Your task to perform on an android device: turn off translation in the chrome app Image 0: 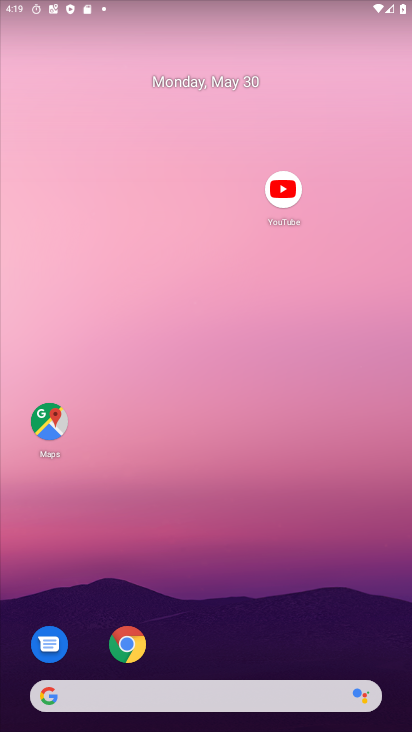
Step 0: click (123, 647)
Your task to perform on an android device: turn off translation in the chrome app Image 1: 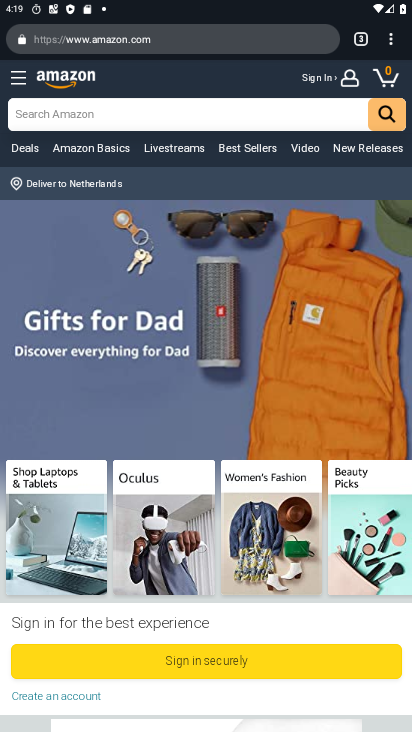
Step 1: click (396, 33)
Your task to perform on an android device: turn off translation in the chrome app Image 2: 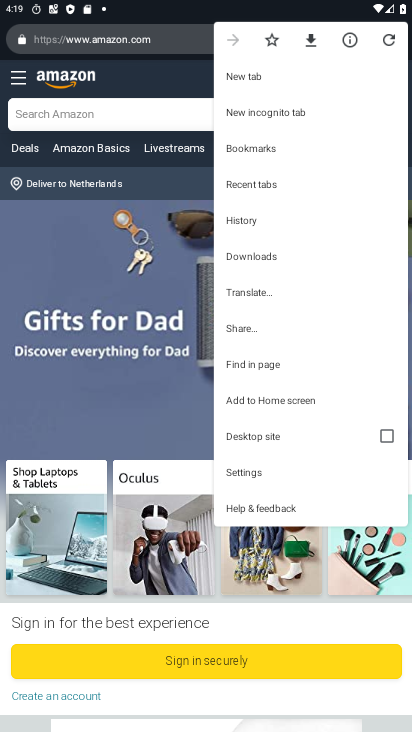
Step 2: click (253, 470)
Your task to perform on an android device: turn off translation in the chrome app Image 3: 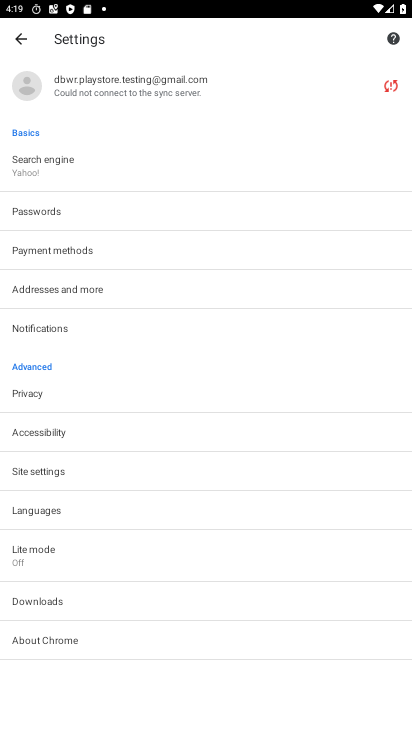
Step 3: click (171, 519)
Your task to perform on an android device: turn off translation in the chrome app Image 4: 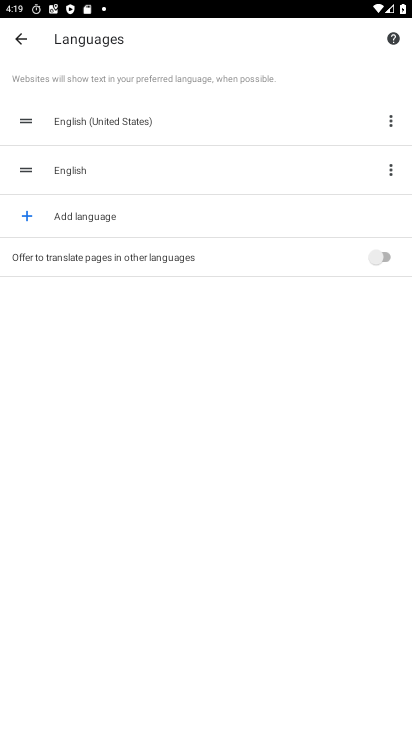
Step 4: task complete